Your task to perform on an android device: make emails show in primary in the gmail app Image 0: 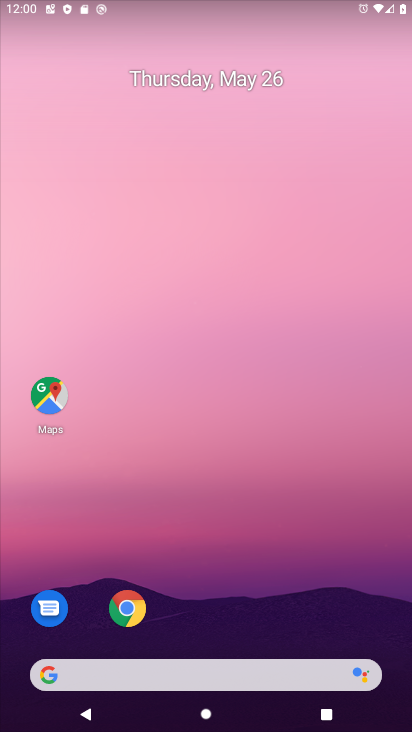
Step 0: drag from (235, 719) to (261, 222)
Your task to perform on an android device: make emails show in primary in the gmail app Image 1: 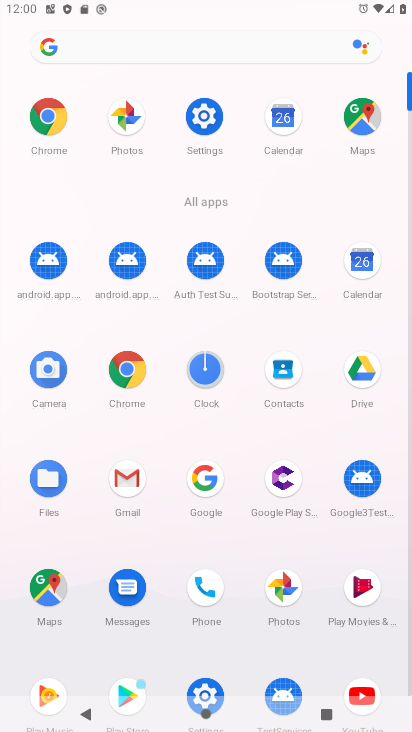
Step 1: click (126, 470)
Your task to perform on an android device: make emails show in primary in the gmail app Image 2: 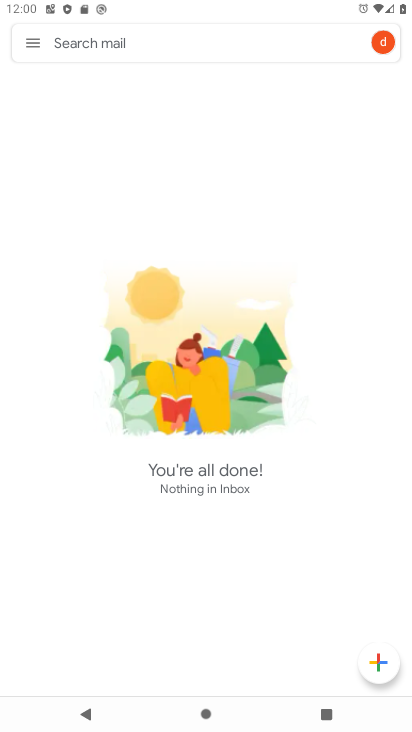
Step 2: click (129, 480)
Your task to perform on an android device: make emails show in primary in the gmail app Image 3: 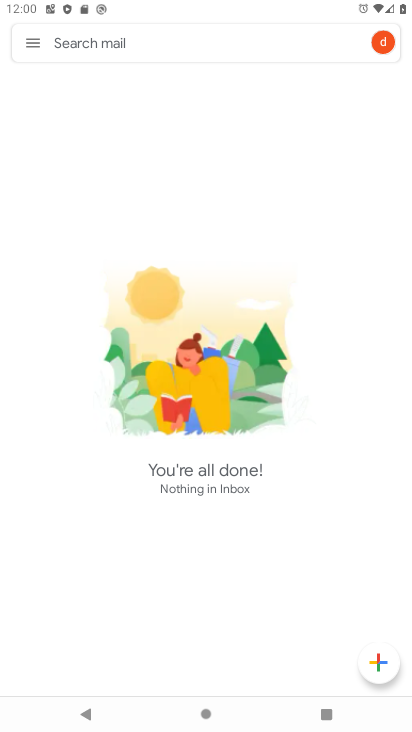
Step 3: click (31, 39)
Your task to perform on an android device: make emails show in primary in the gmail app Image 4: 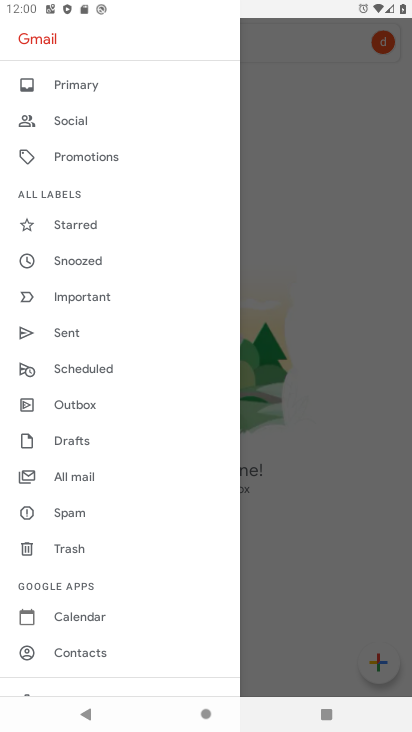
Step 4: drag from (82, 634) to (155, 302)
Your task to perform on an android device: make emails show in primary in the gmail app Image 5: 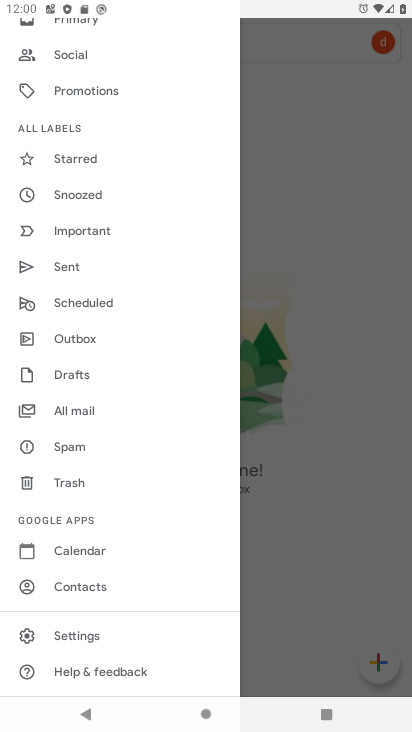
Step 5: click (75, 632)
Your task to perform on an android device: make emails show in primary in the gmail app Image 6: 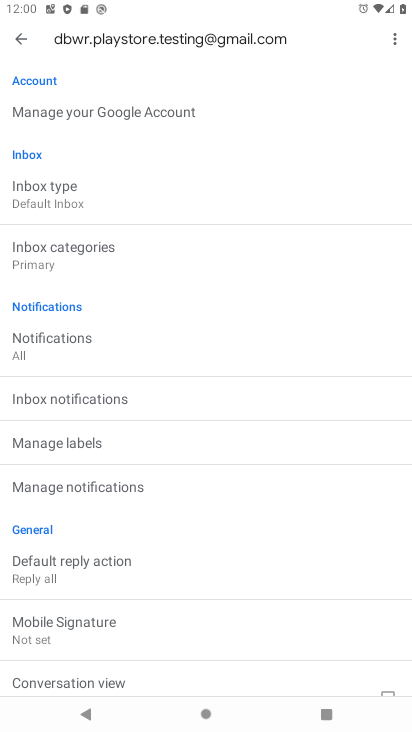
Step 6: task complete